Your task to perform on an android device: delete location history Image 0: 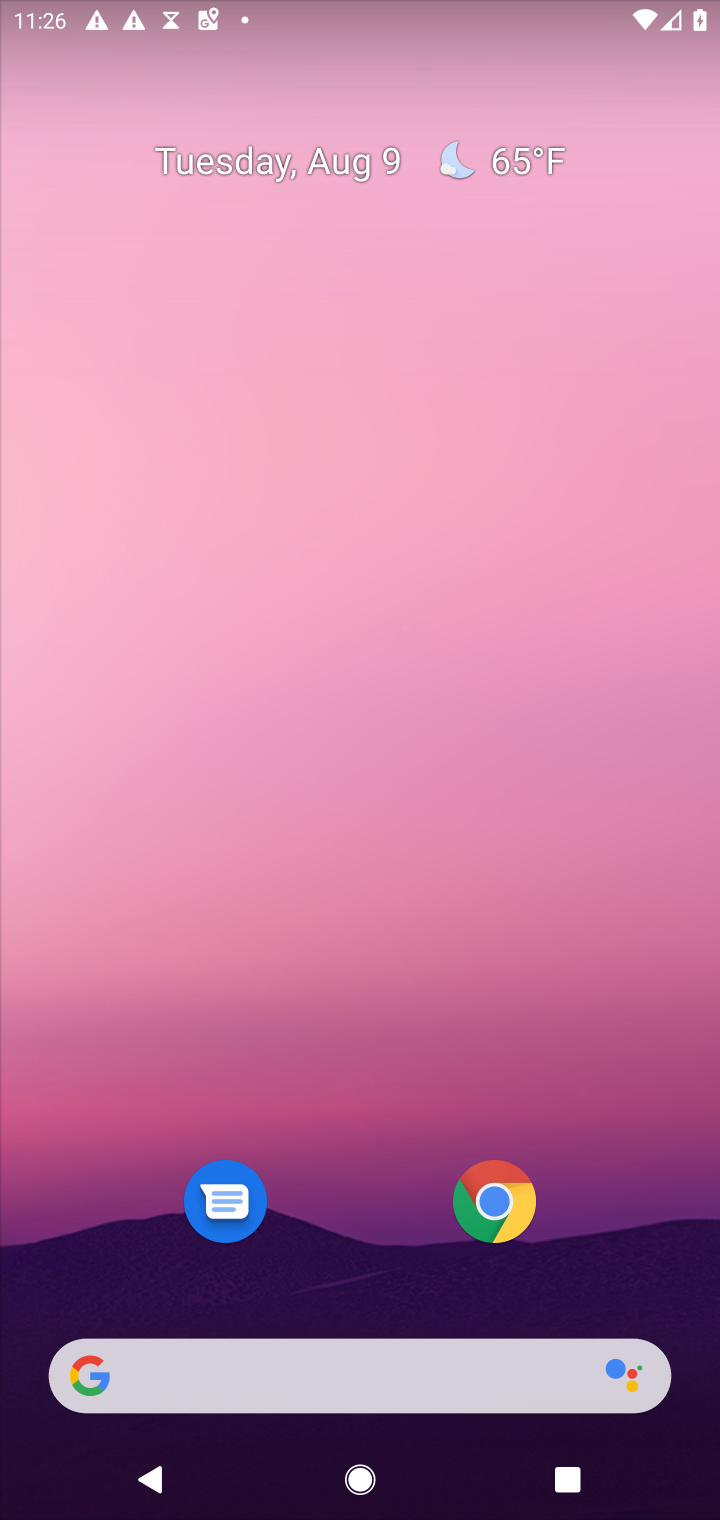
Step 0: press home button
Your task to perform on an android device: delete location history Image 1: 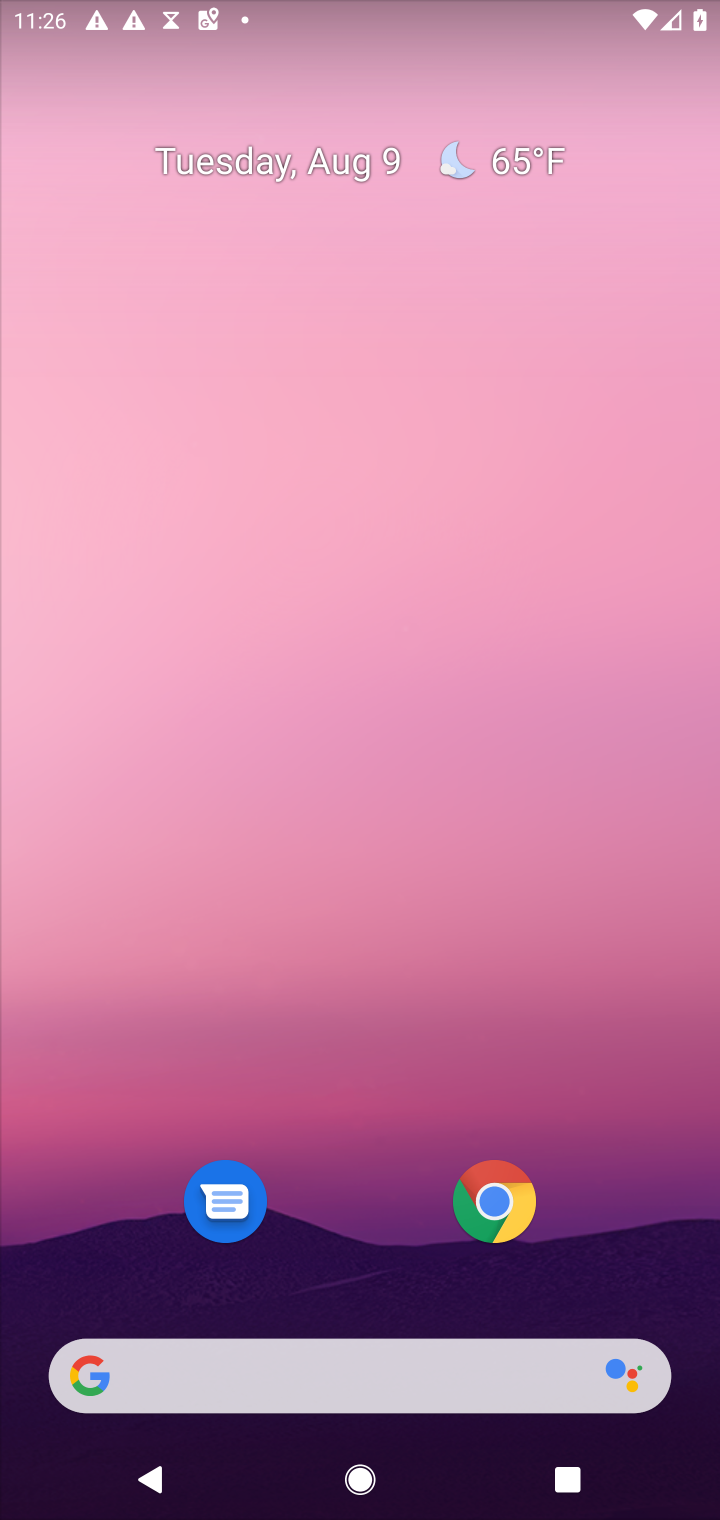
Step 1: drag from (362, 1253) to (482, 214)
Your task to perform on an android device: delete location history Image 2: 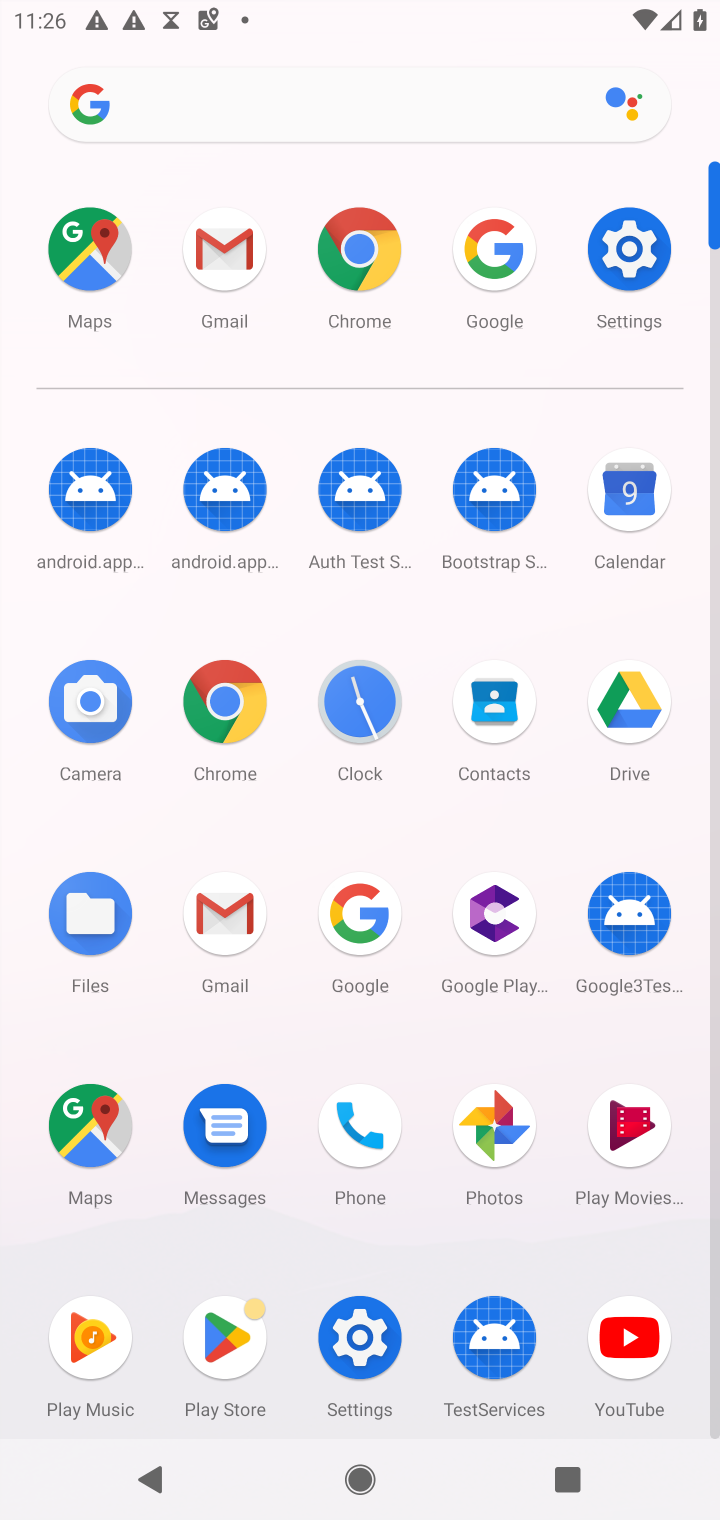
Step 2: click (627, 261)
Your task to perform on an android device: delete location history Image 3: 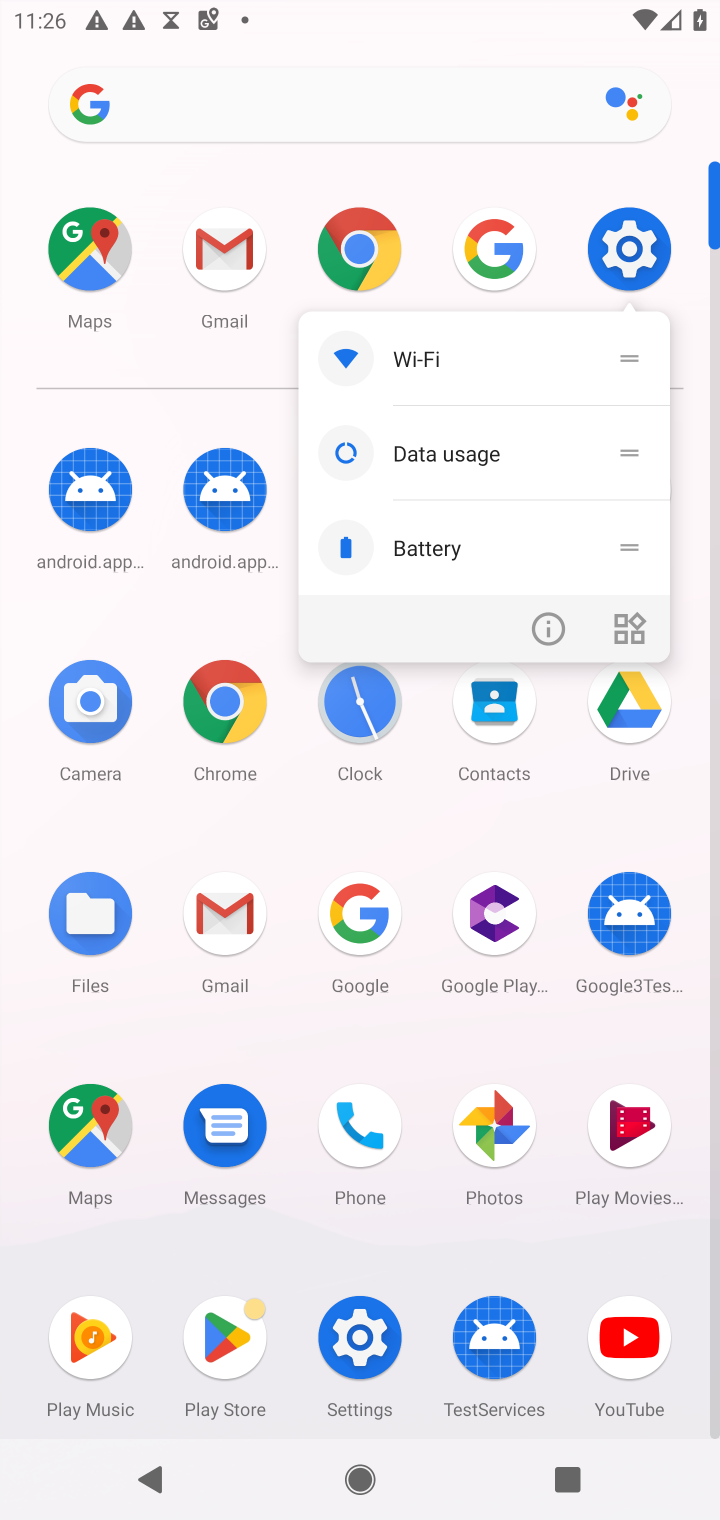
Step 3: click (646, 244)
Your task to perform on an android device: delete location history Image 4: 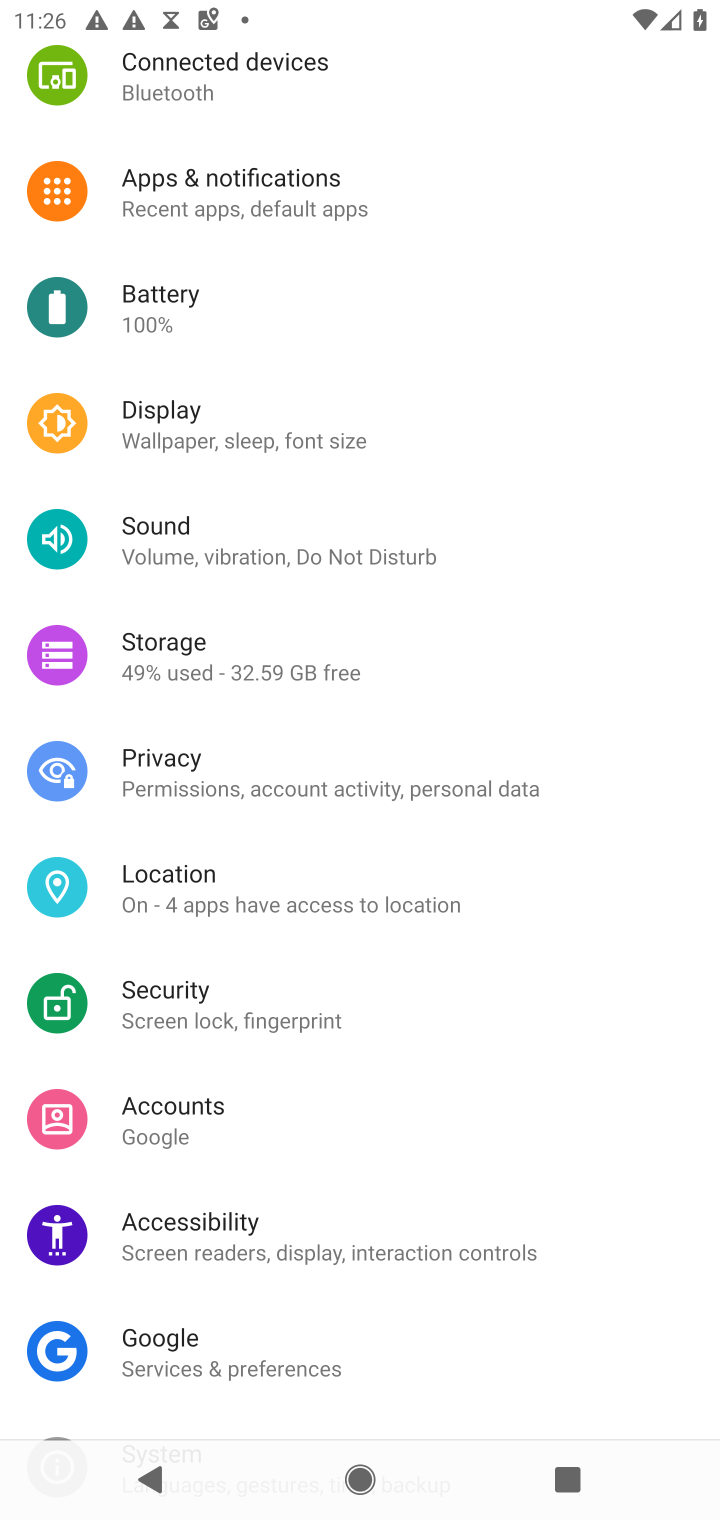
Step 4: click (160, 892)
Your task to perform on an android device: delete location history Image 5: 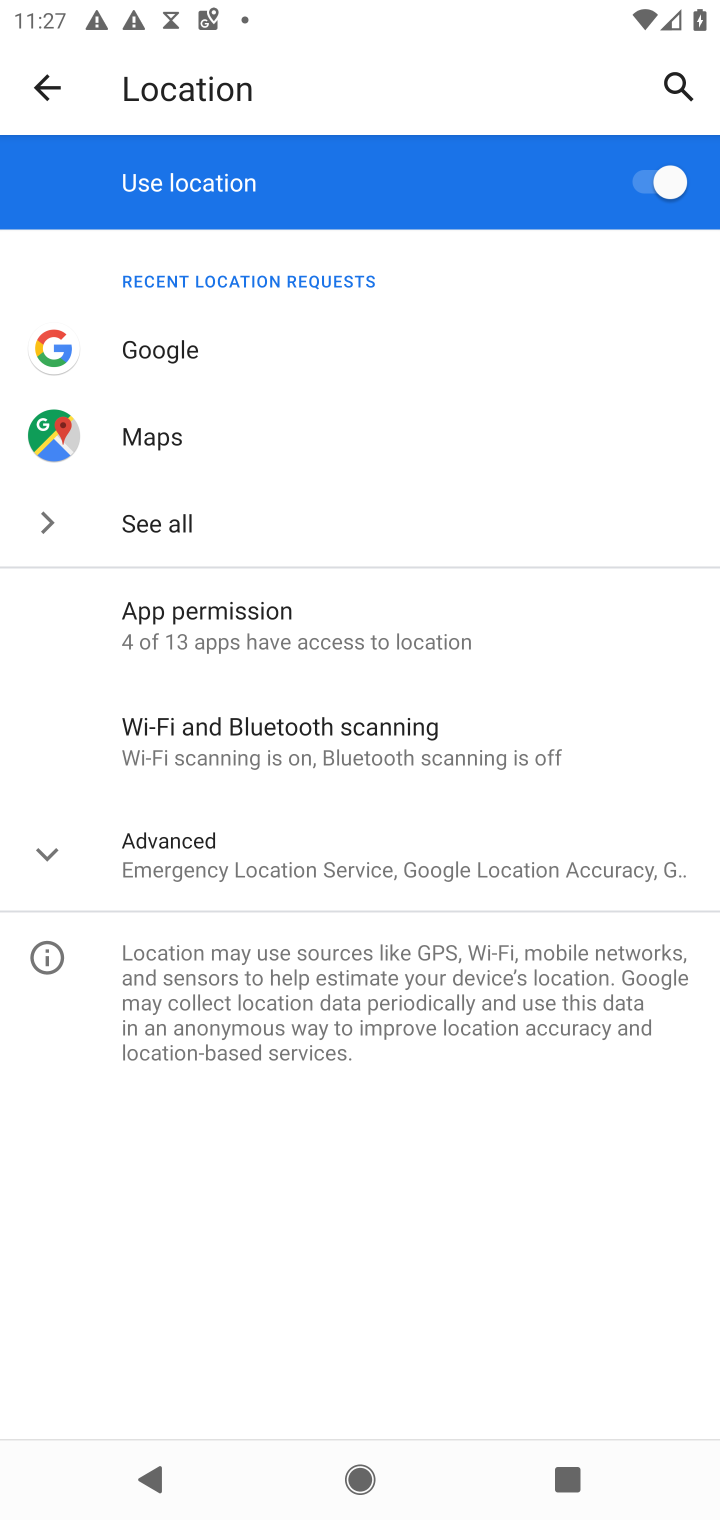
Step 5: click (57, 853)
Your task to perform on an android device: delete location history Image 6: 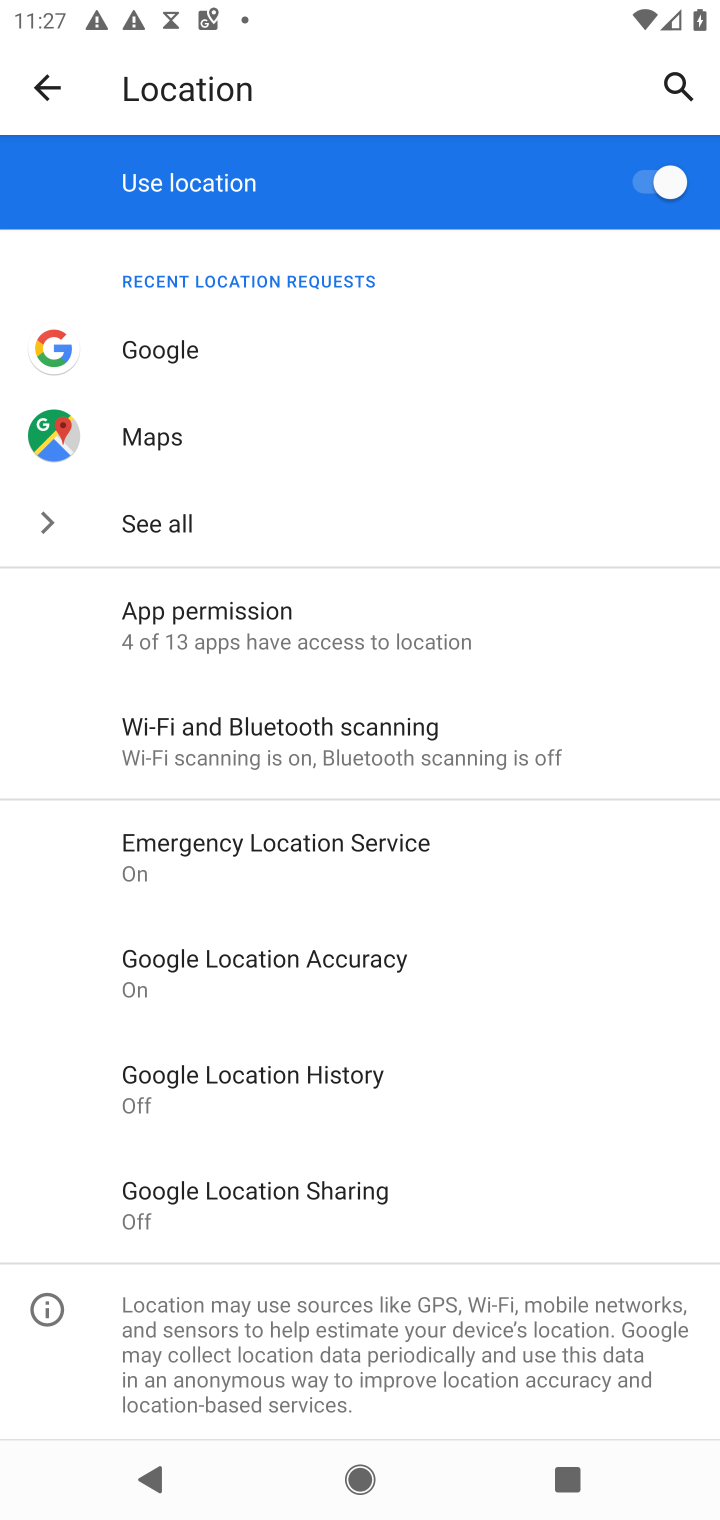
Step 6: click (284, 1086)
Your task to perform on an android device: delete location history Image 7: 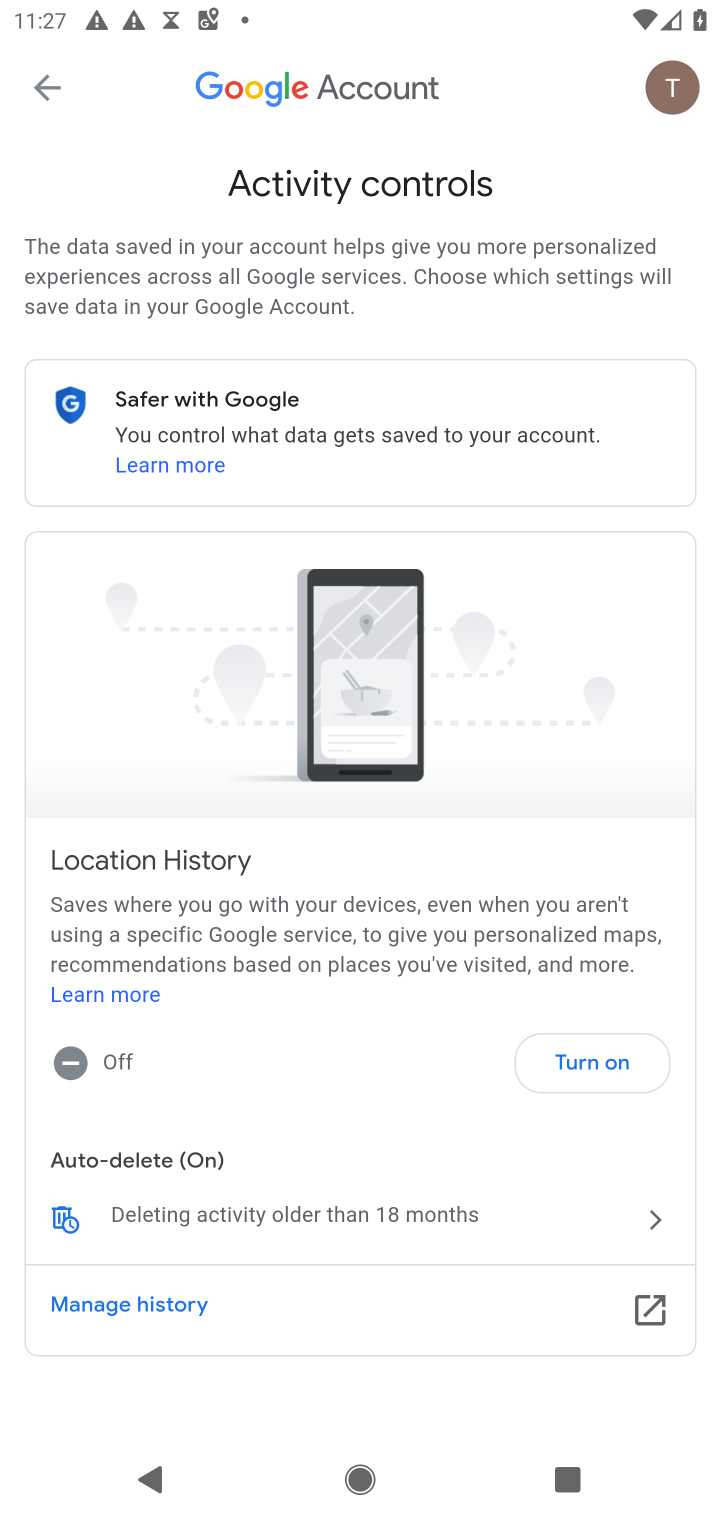
Step 7: click (69, 1219)
Your task to perform on an android device: delete location history Image 8: 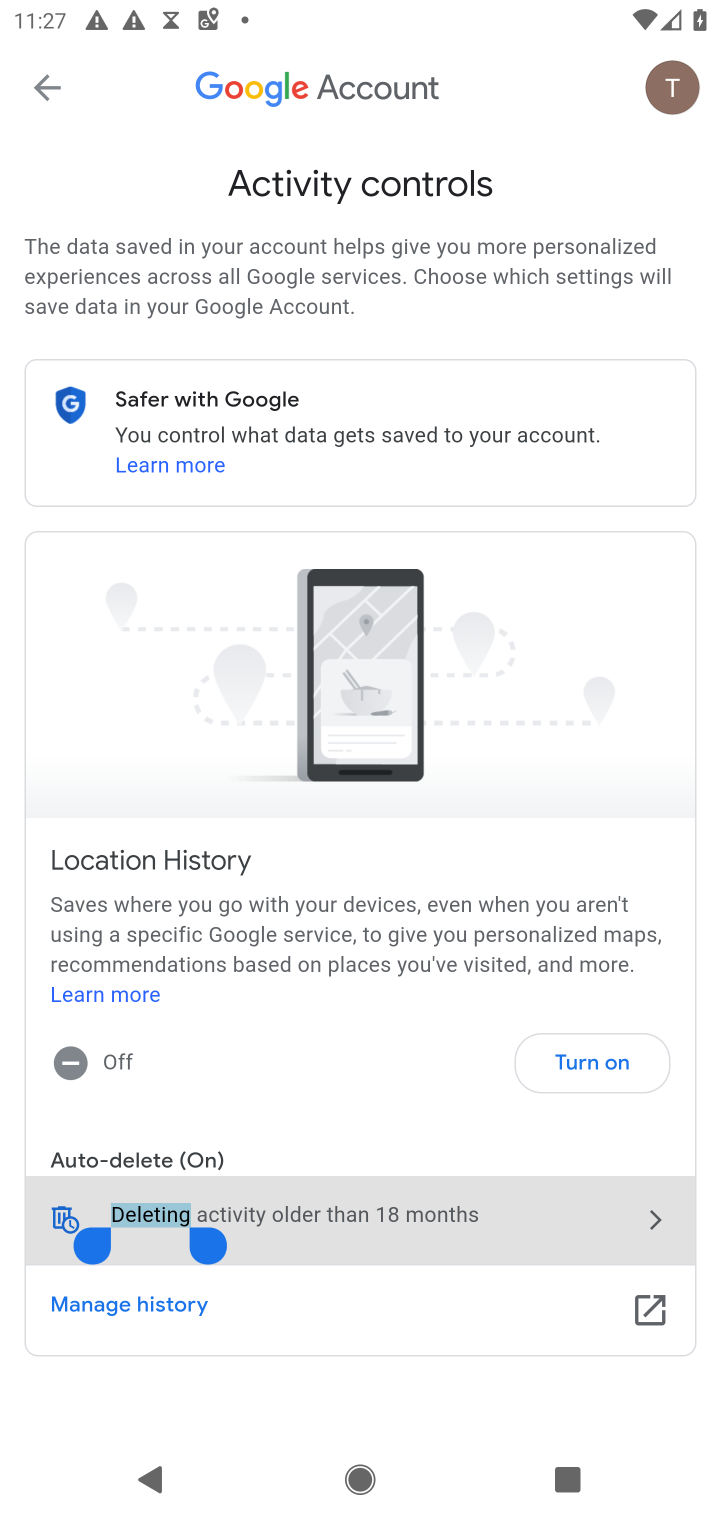
Step 8: click (62, 1225)
Your task to perform on an android device: delete location history Image 9: 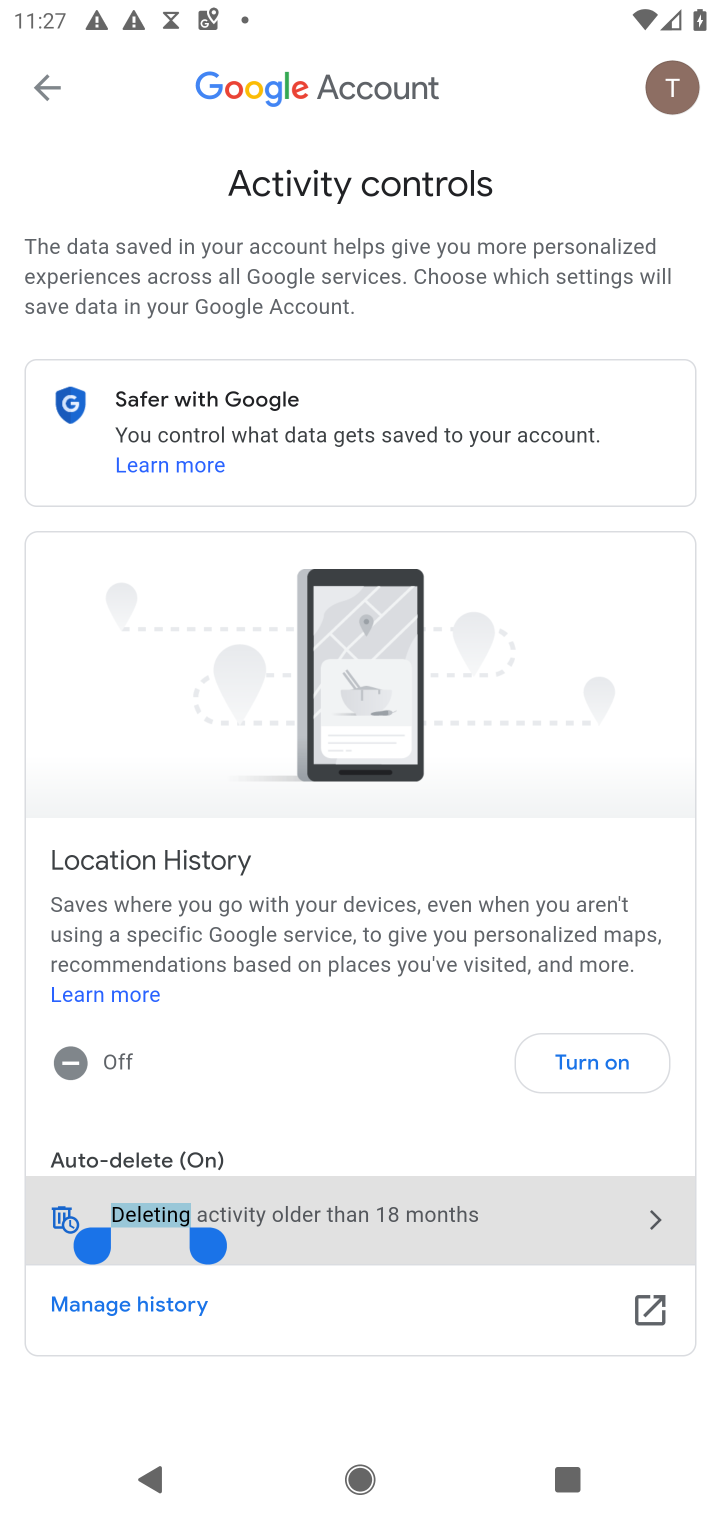
Step 9: click (58, 1222)
Your task to perform on an android device: delete location history Image 10: 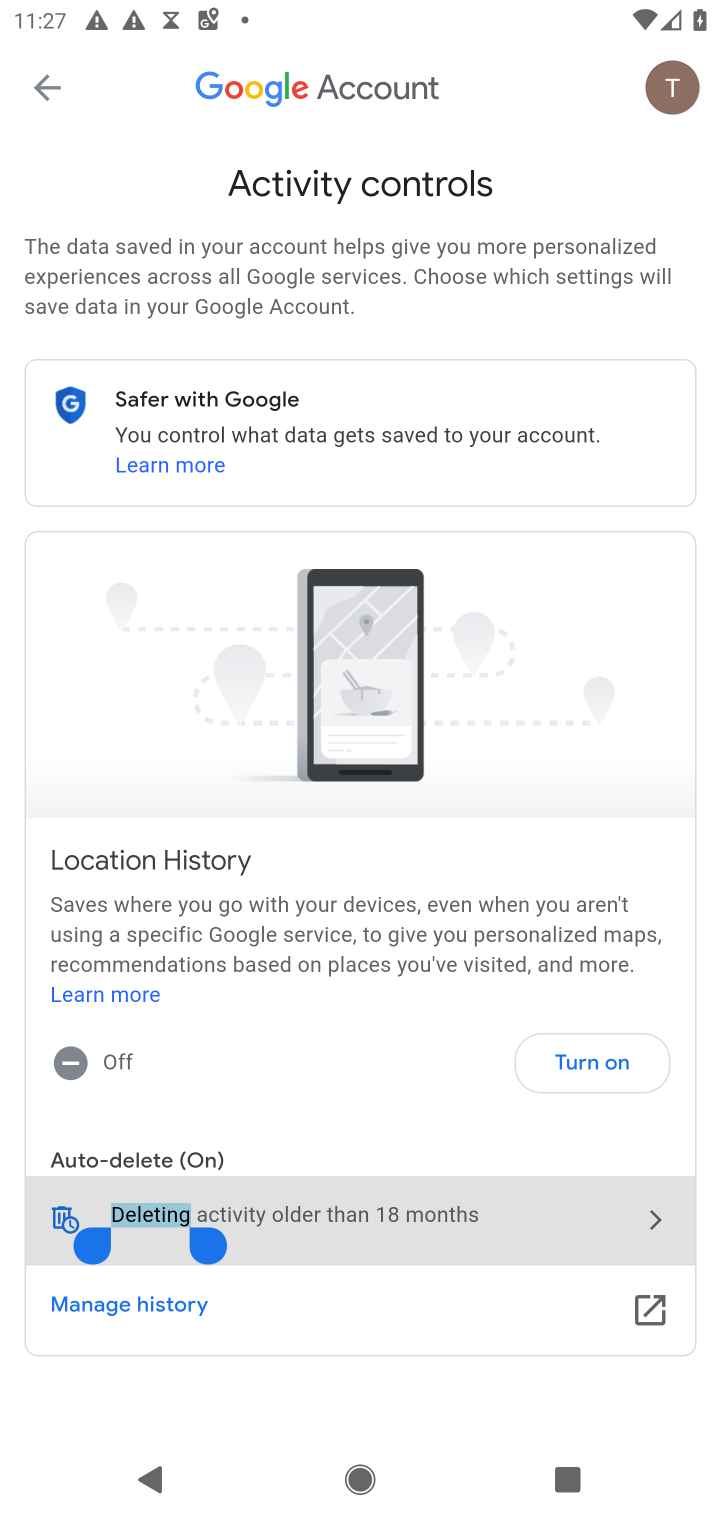
Step 10: drag from (454, 1141) to (504, 567)
Your task to perform on an android device: delete location history Image 11: 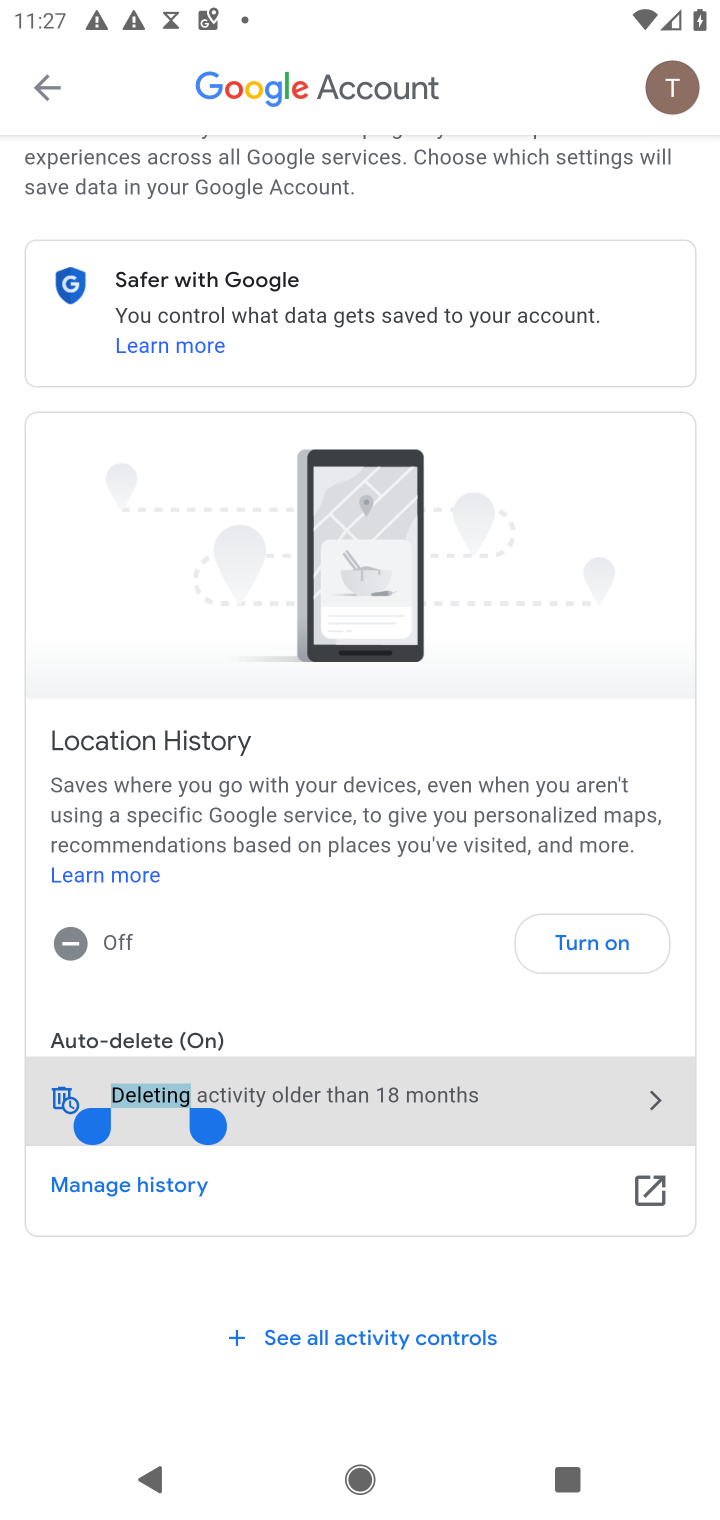
Step 11: click (648, 1087)
Your task to perform on an android device: delete location history Image 12: 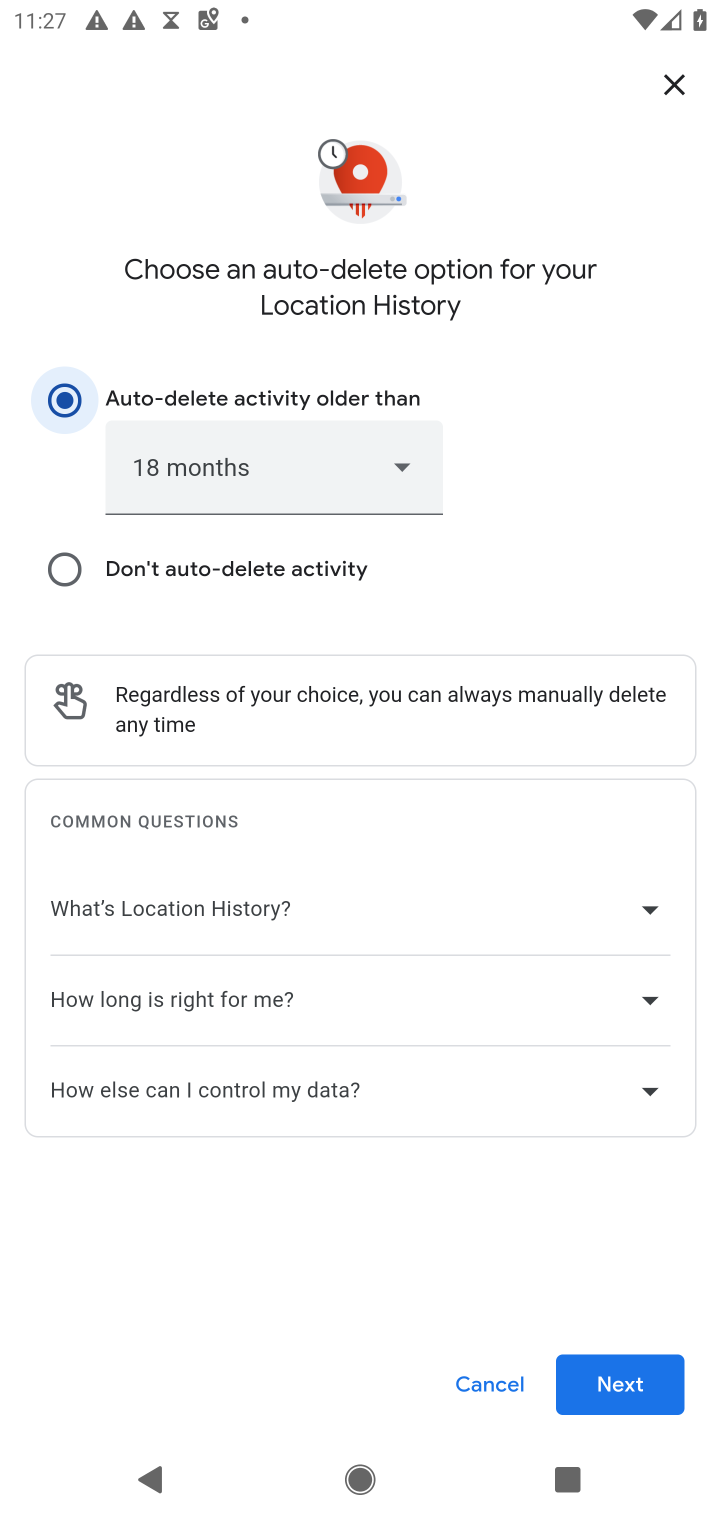
Step 12: click (632, 1400)
Your task to perform on an android device: delete location history Image 13: 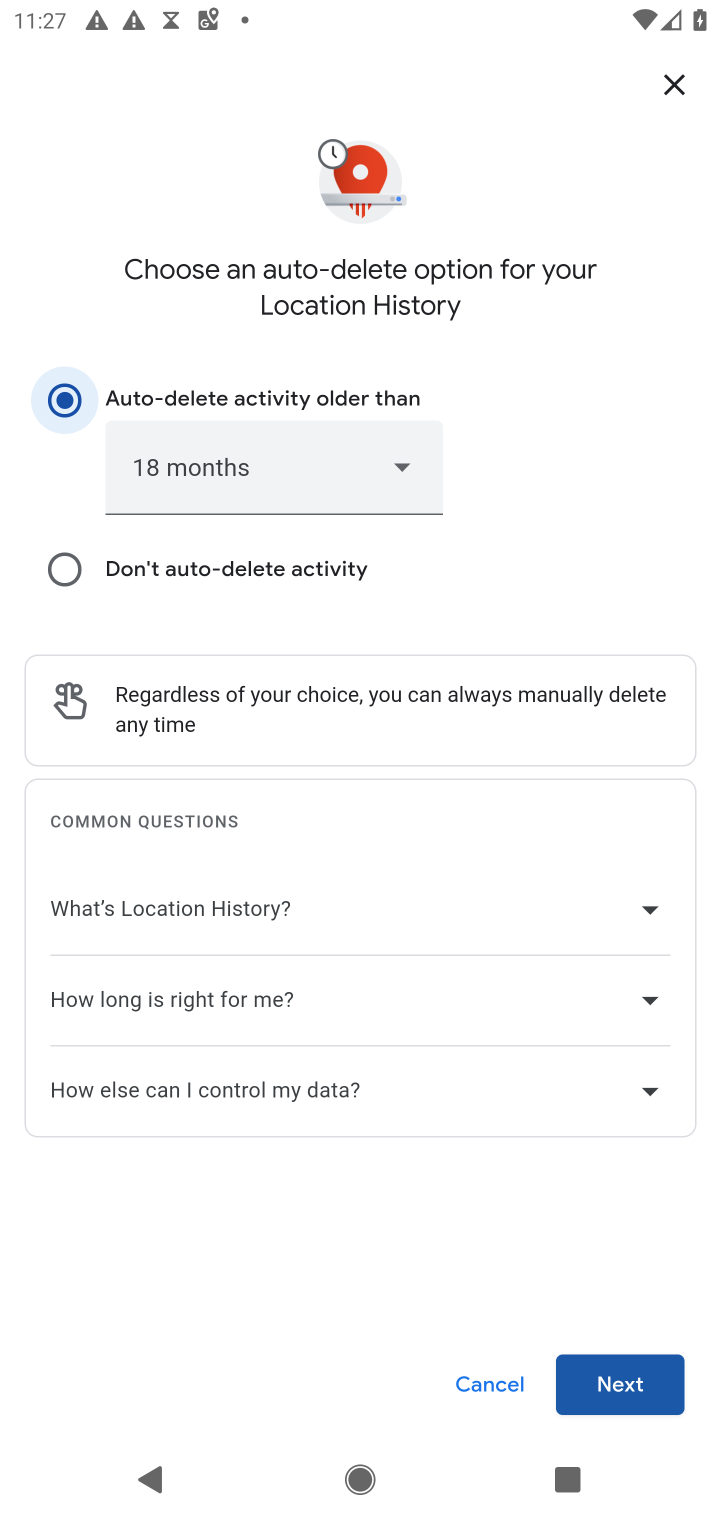
Step 13: click (643, 1370)
Your task to perform on an android device: delete location history Image 14: 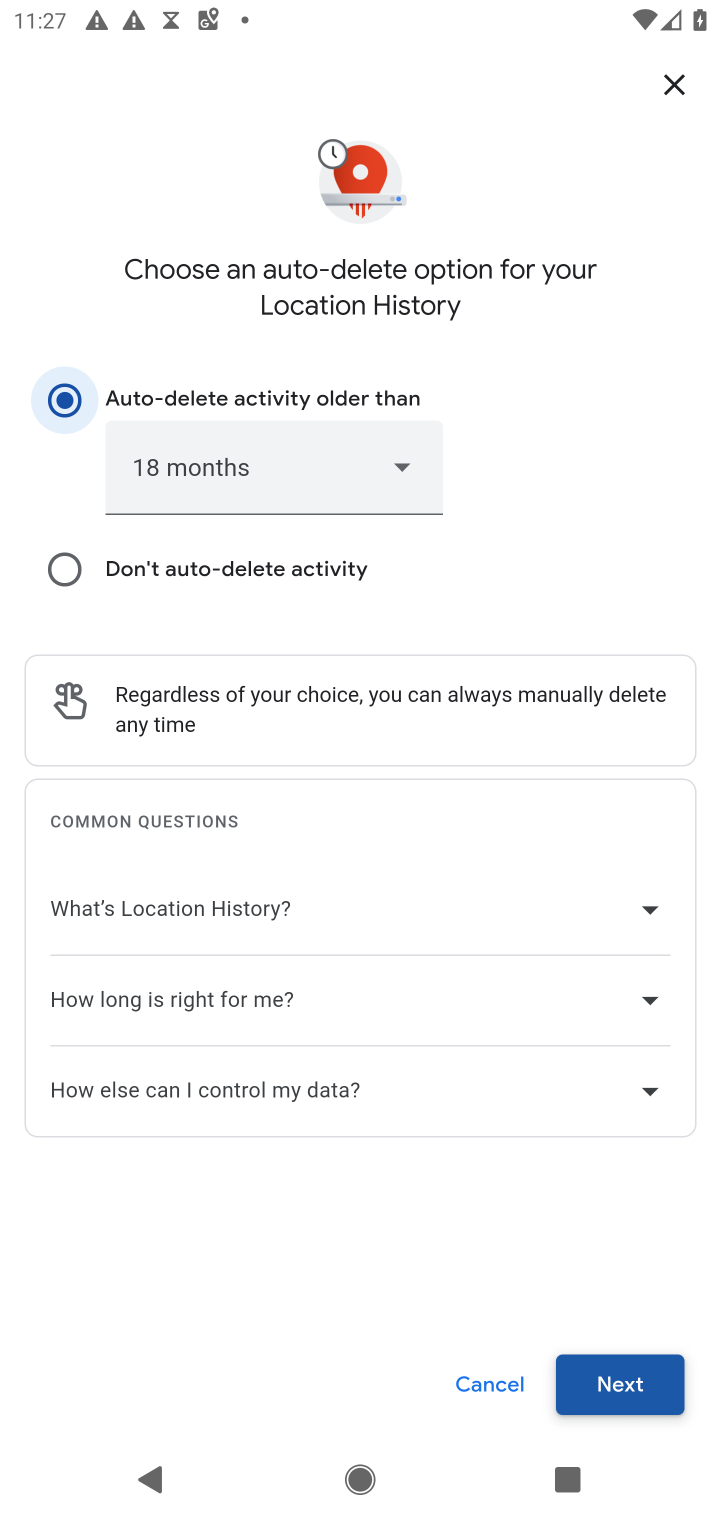
Step 14: click (643, 1370)
Your task to perform on an android device: delete location history Image 15: 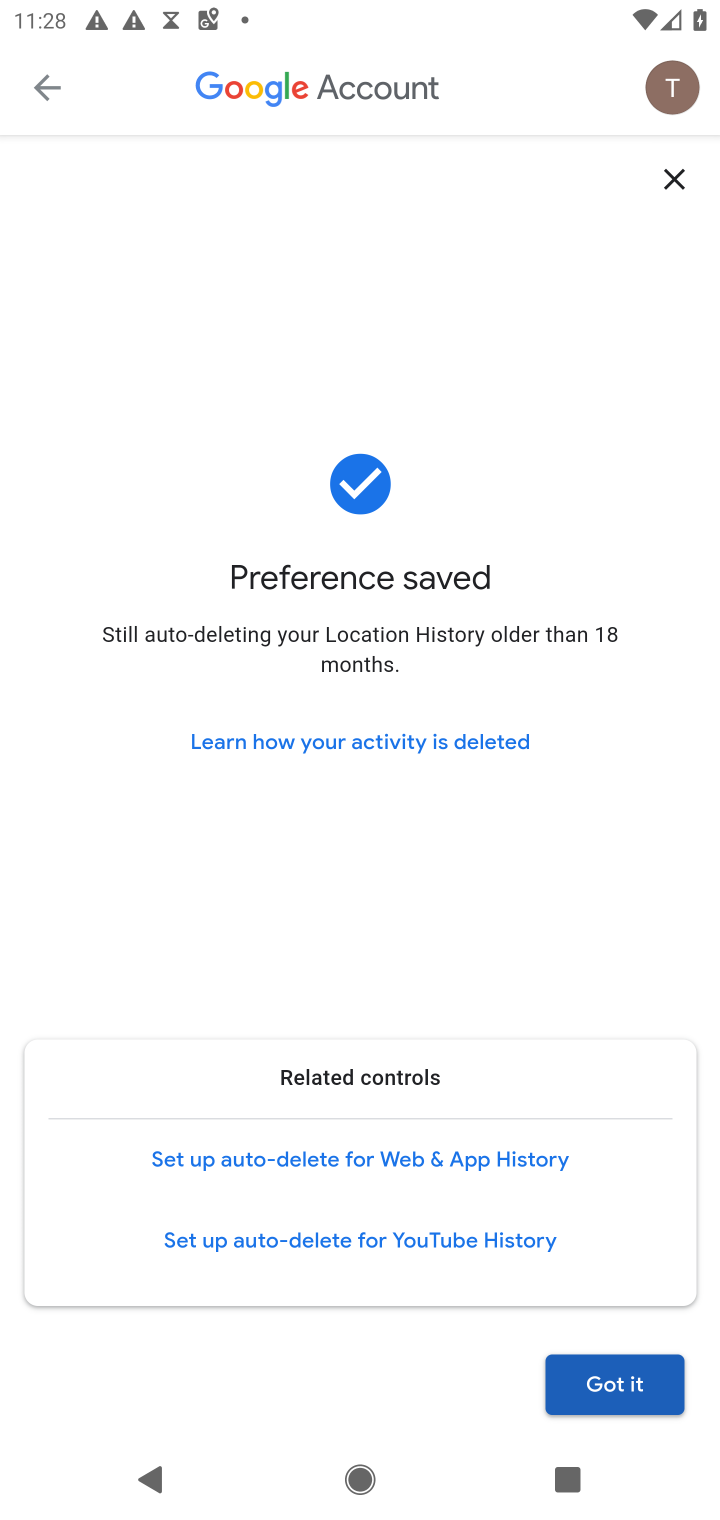
Step 15: click (635, 1386)
Your task to perform on an android device: delete location history Image 16: 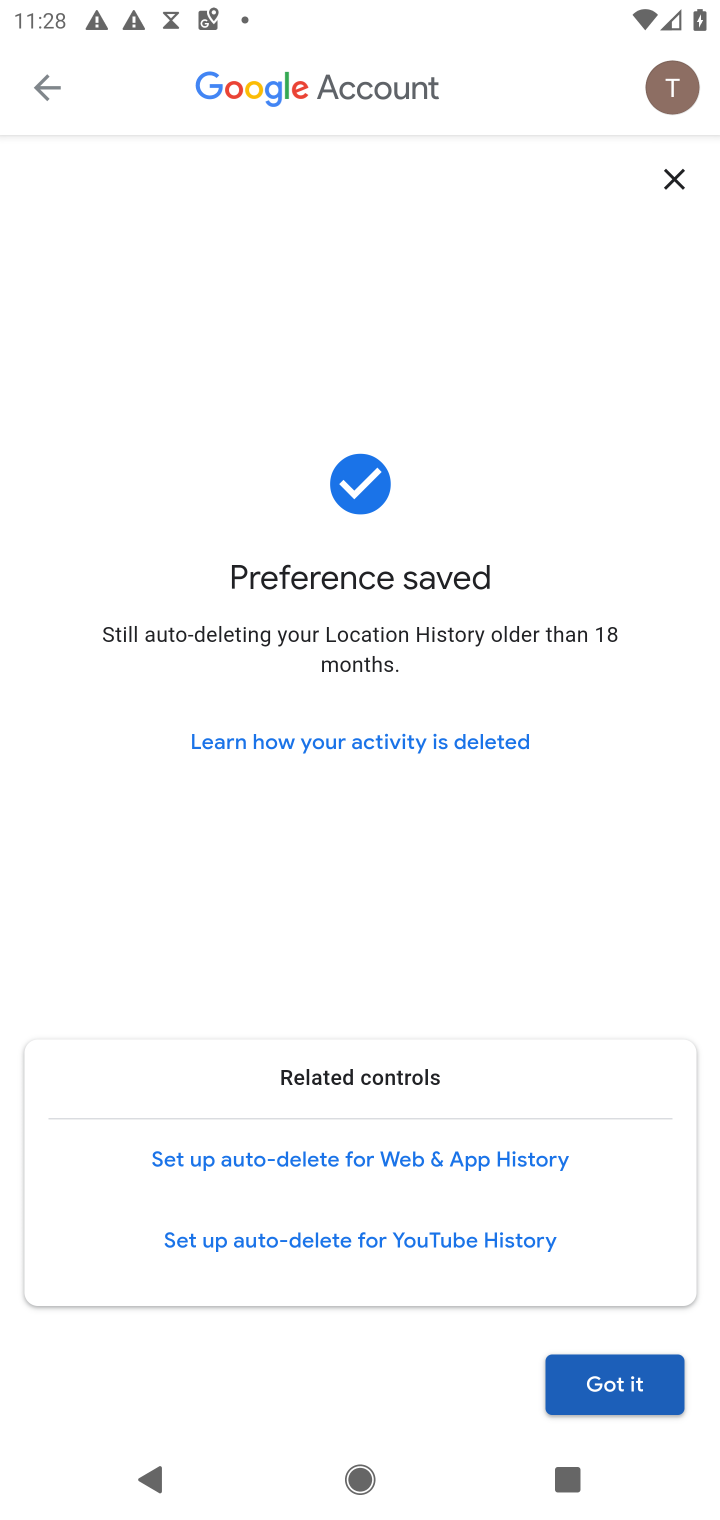
Step 16: click (597, 1389)
Your task to perform on an android device: delete location history Image 17: 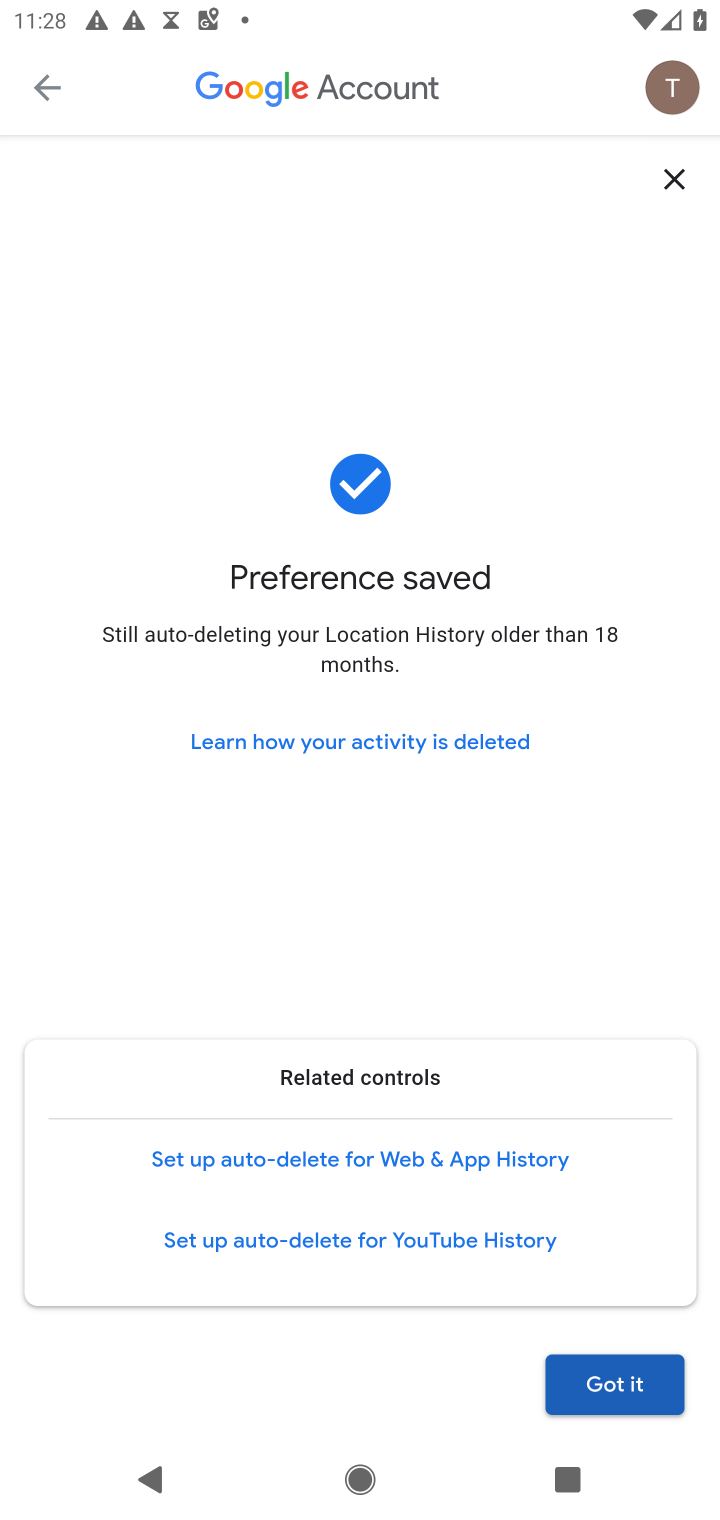
Step 17: click (626, 1372)
Your task to perform on an android device: delete location history Image 18: 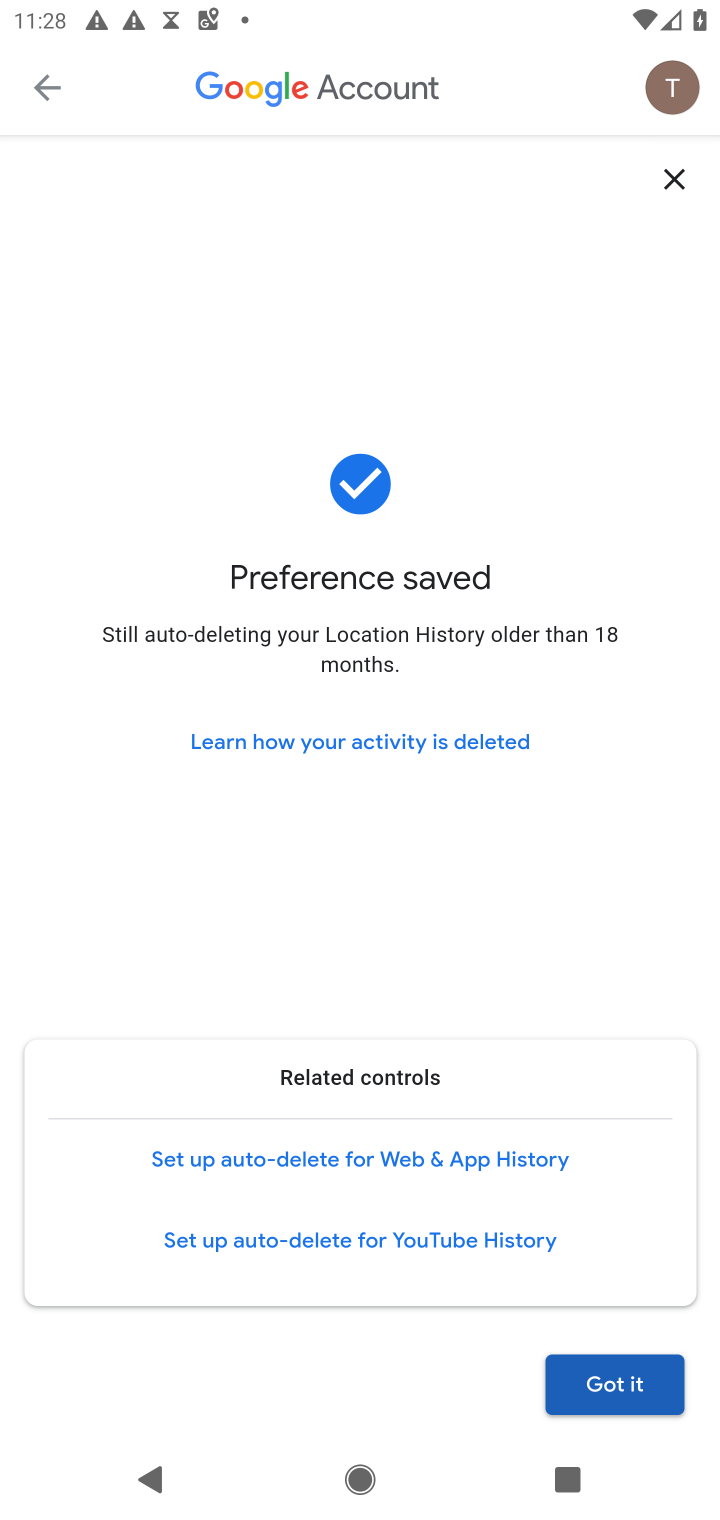
Step 18: click (626, 1372)
Your task to perform on an android device: delete location history Image 19: 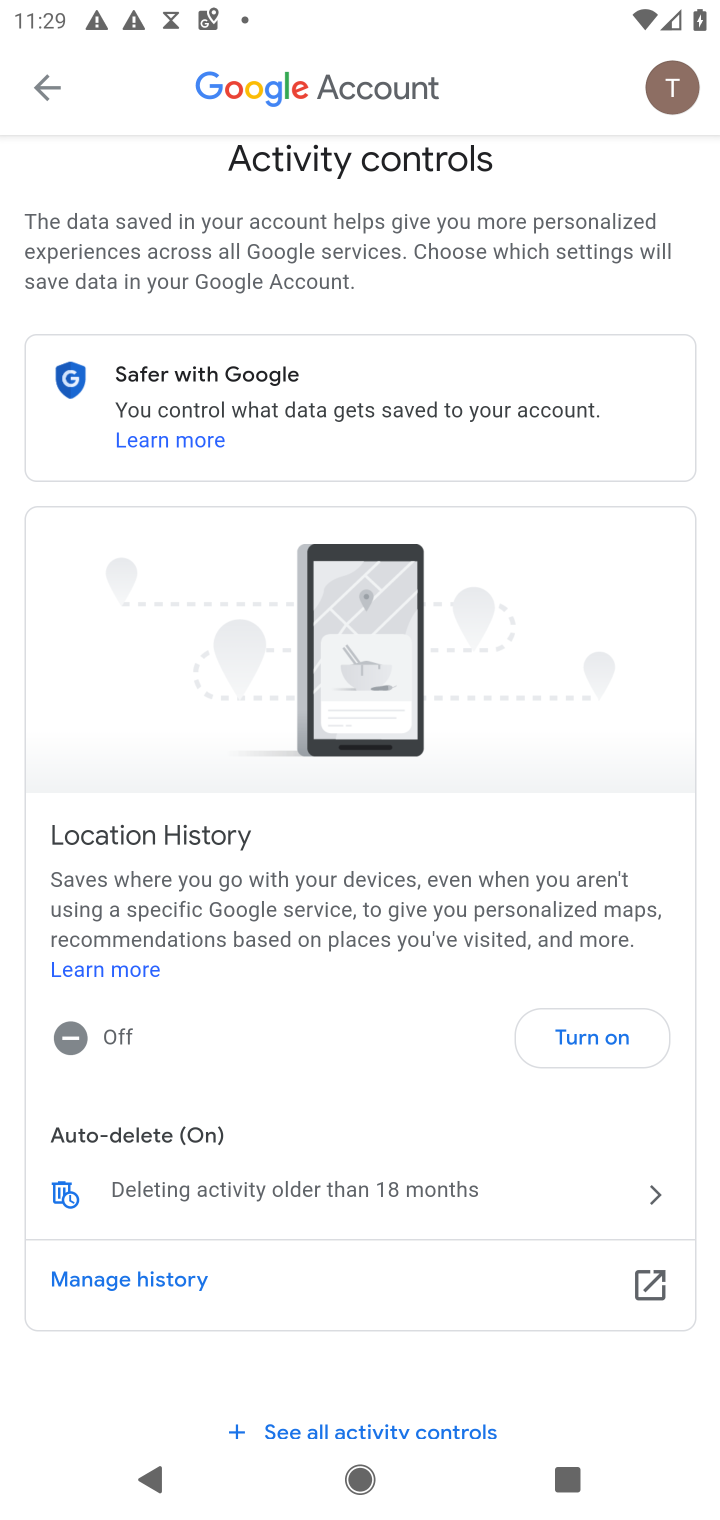
Step 19: task complete